Your task to perform on an android device: change text size in settings app Image 0: 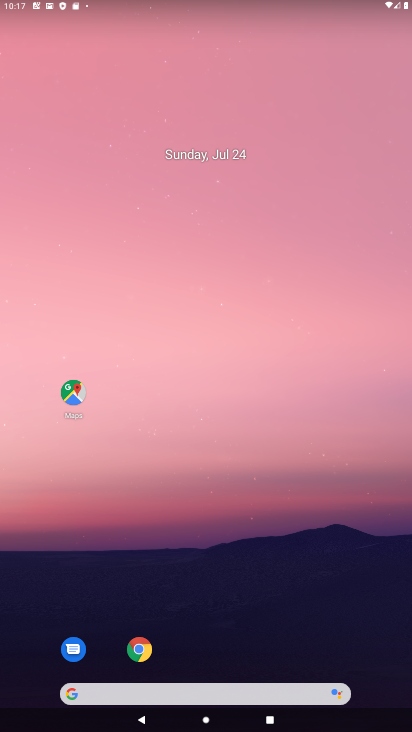
Step 0: drag from (242, 548) to (372, 28)
Your task to perform on an android device: change text size in settings app Image 1: 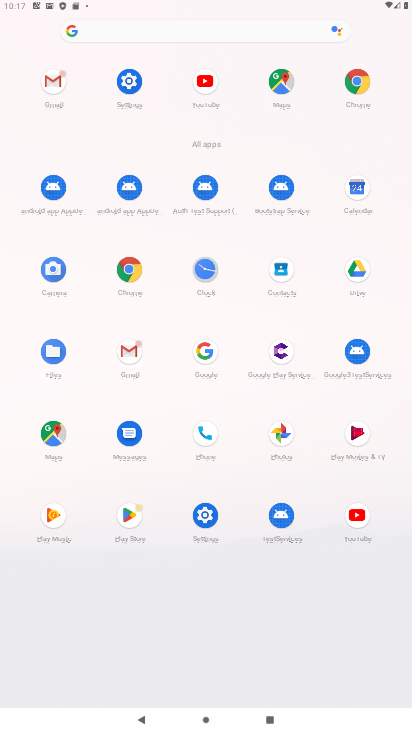
Step 1: click (130, 83)
Your task to perform on an android device: change text size in settings app Image 2: 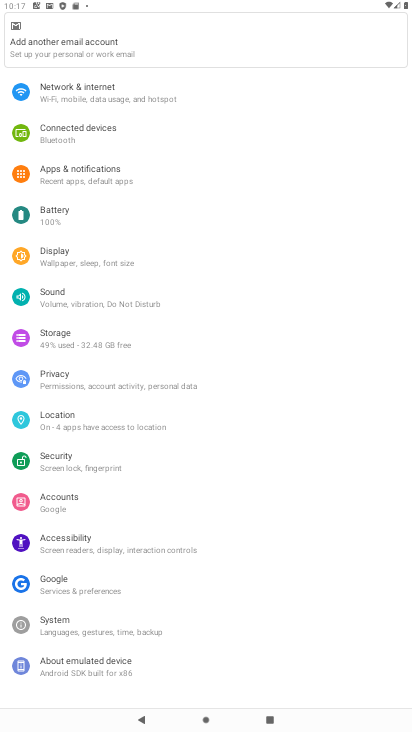
Step 2: click (281, 272)
Your task to perform on an android device: change text size in settings app Image 3: 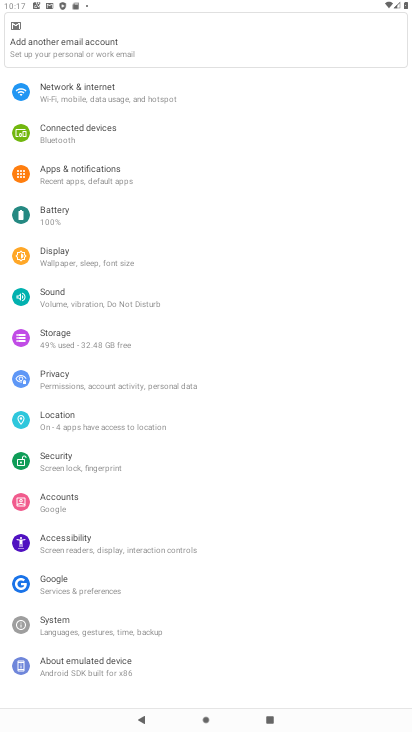
Step 3: drag from (88, 658) to (104, 329)
Your task to perform on an android device: change text size in settings app Image 4: 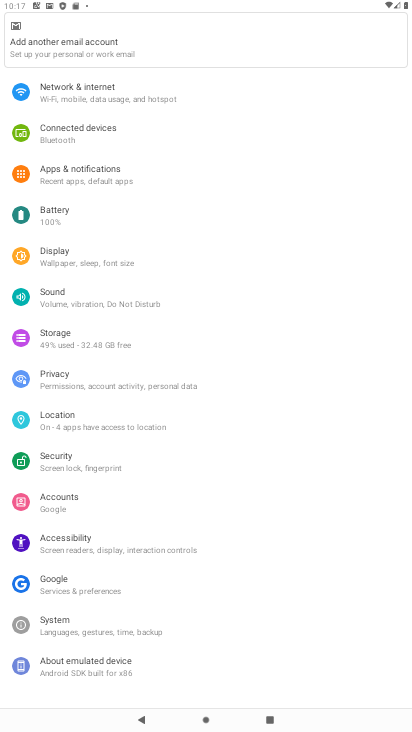
Step 4: click (108, 266)
Your task to perform on an android device: change text size in settings app Image 5: 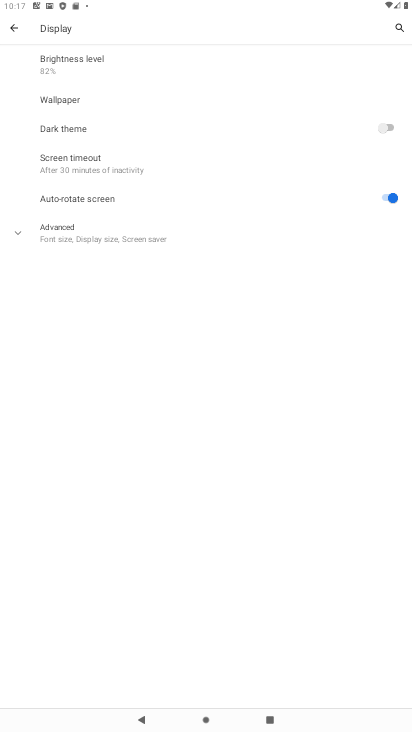
Step 5: click (115, 234)
Your task to perform on an android device: change text size in settings app Image 6: 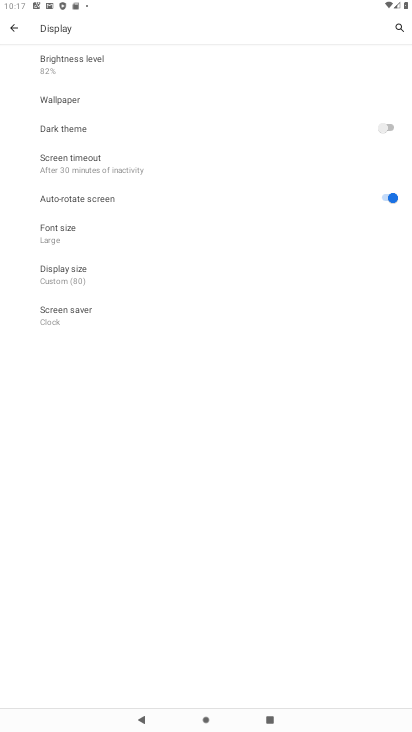
Step 6: click (63, 233)
Your task to perform on an android device: change text size in settings app Image 7: 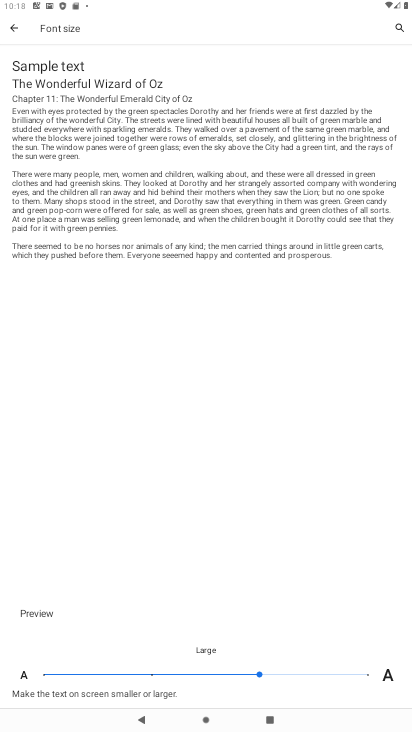
Step 7: drag from (61, 249) to (93, 76)
Your task to perform on an android device: change text size in settings app Image 8: 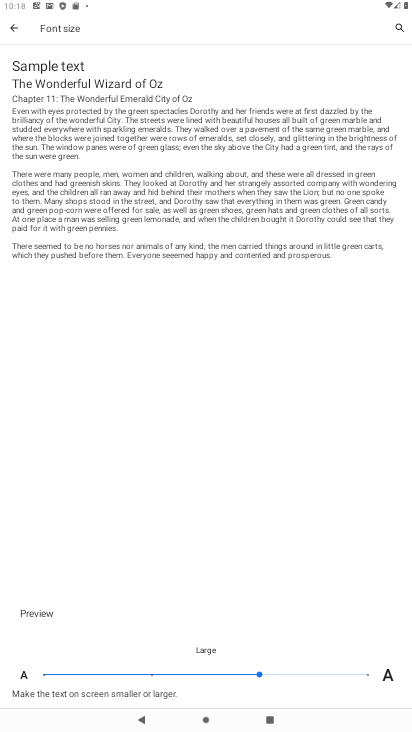
Step 8: click (306, 672)
Your task to perform on an android device: change text size in settings app Image 9: 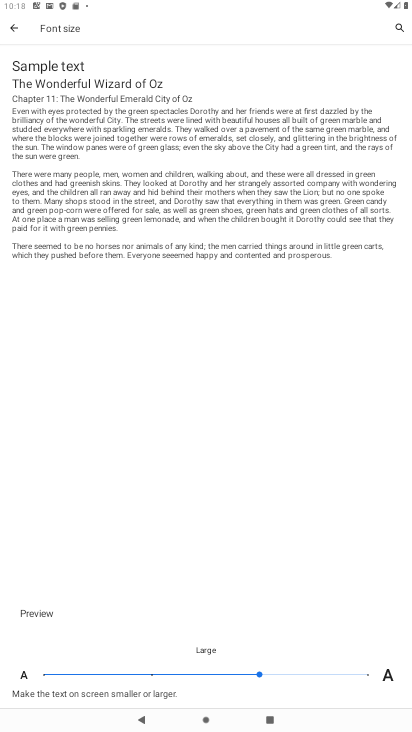
Step 9: task complete